Your task to perform on an android device: Open the calendar and show me this week's events Image 0: 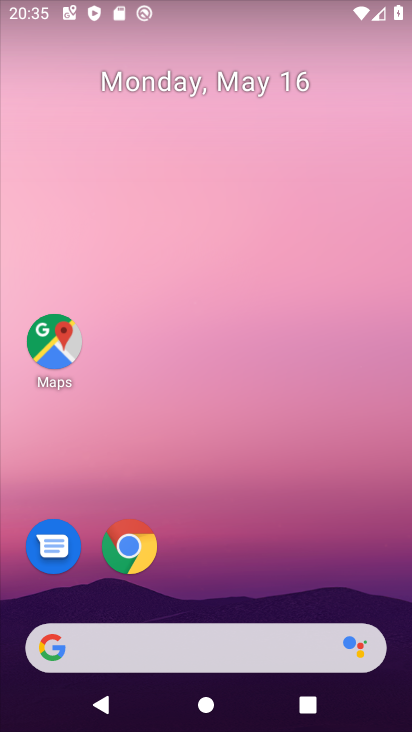
Step 0: drag from (223, 589) to (199, 149)
Your task to perform on an android device: Open the calendar and show me this week's events Image 1: 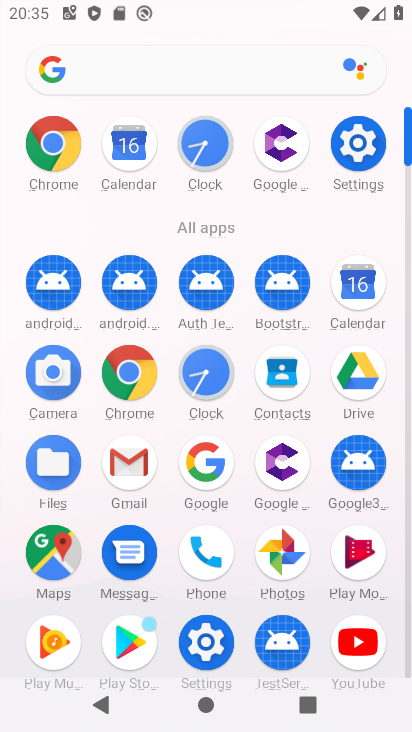
Step 1: click (366, 295)
Your task to perform on an android device: Open the calendar and show me this week's events Image 2: 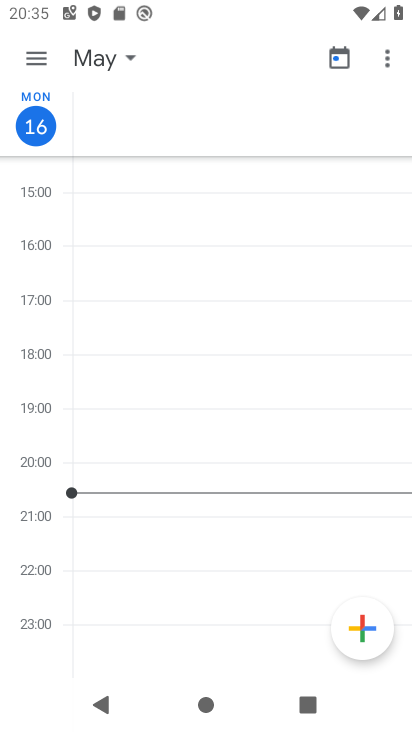
Step 2: click (62, 62)
Your task to perform on an android device: Open the calendar and show me this week's events Image 3: 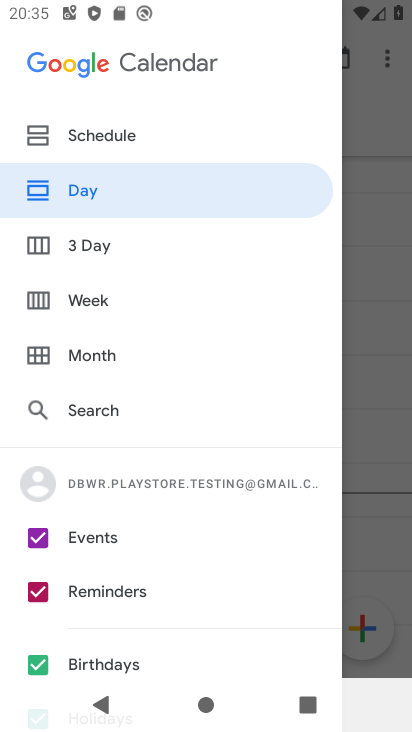
Step 3: drag from (132, 645) to (90, 208)
Your task to perform on an android device: Open the calendar and show me this week's events Image 4: 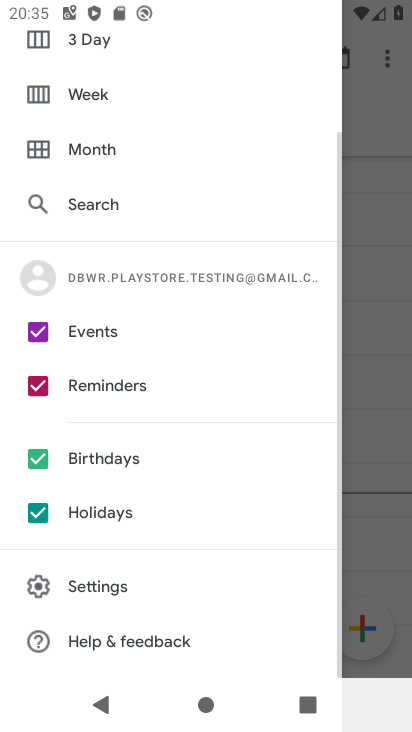
Step 4: click (44, 510)
Your task to perform on an android device: Open the calendar and show me this week's events Image 5: 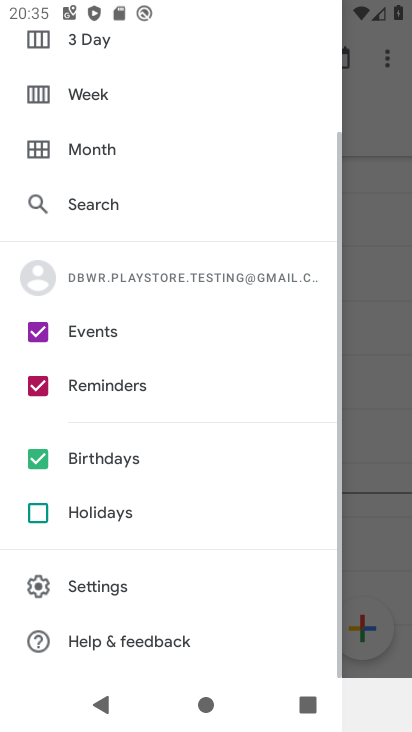
Step 5: click (40, 450)
Your task to perform on an android device: Open the calendar and show me this week's events Image 6: 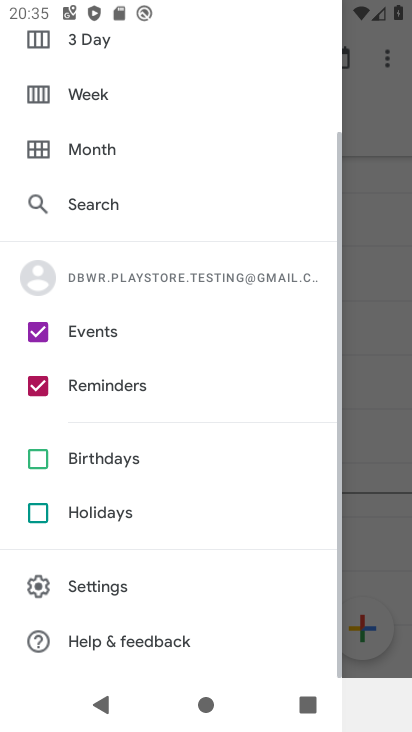
Step 6: click (36, 391)
Your task to perform on an android device: Open the calendar and show me this week's events Image 7: 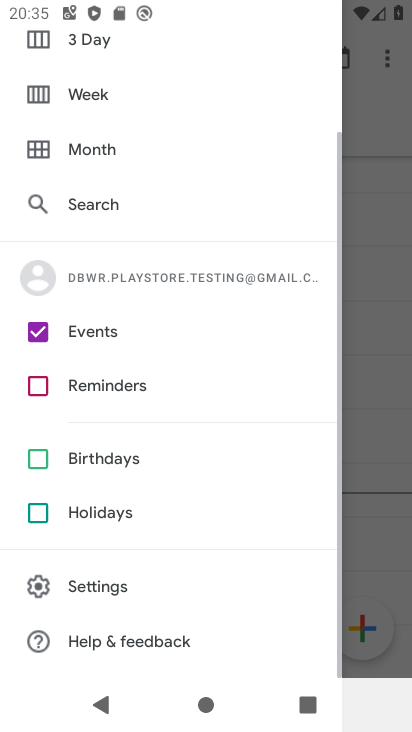
Step 7: drag from (139, 126) to (156, 462)
Your task to perform on an android device: Open the calendar and show me this week's events Image 8: 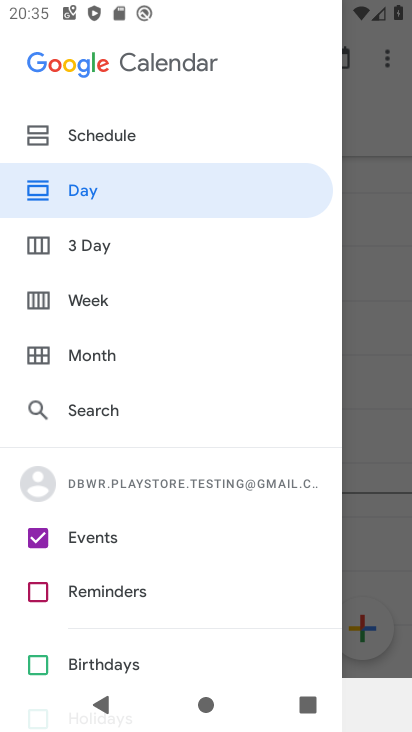
Step 8: click (145, 306)
Your task to perform on an android device: Open the calendar and show me this week's events Image 9: 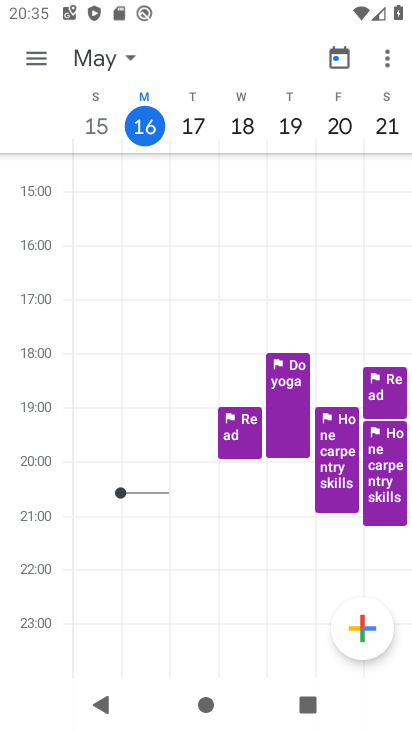
Step 9: click (133, 62)
Your task to perform on an android device: Open the calendar and show me this week's events Image 10: 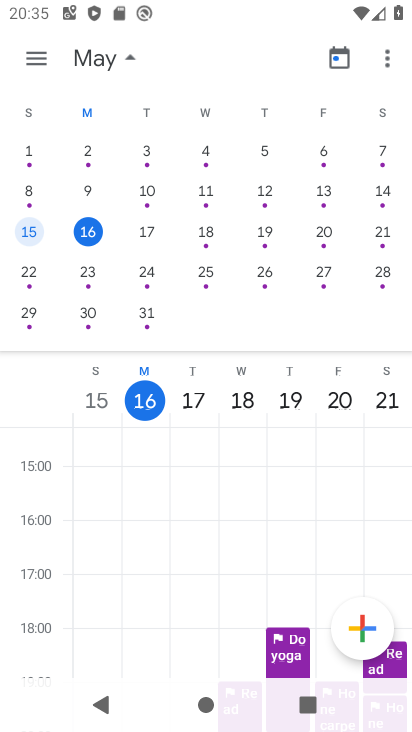
Step 10: click (133, 62)
Your task to perform on an android device: Open the calendar and show me this week's events Image 11: 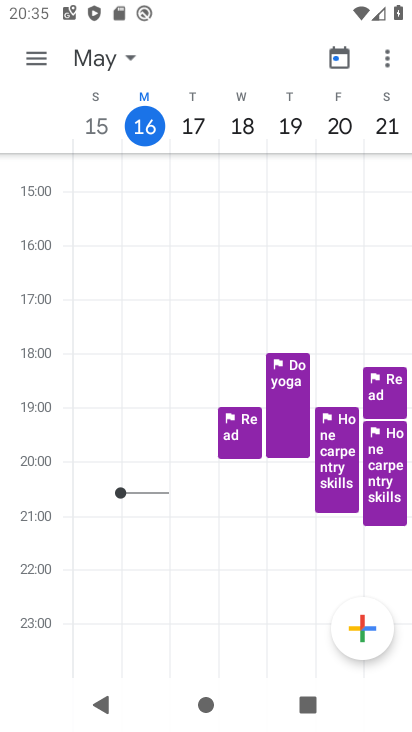
Step 11: task complete